Your task to perform on an android device: Do I have any events today? Image 0: 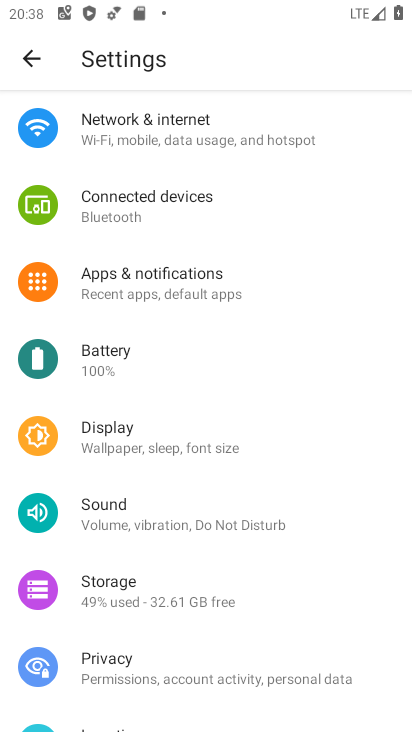
Step 0: press back button
Your task to perform on an android device: Do I have any events today? Image 1: 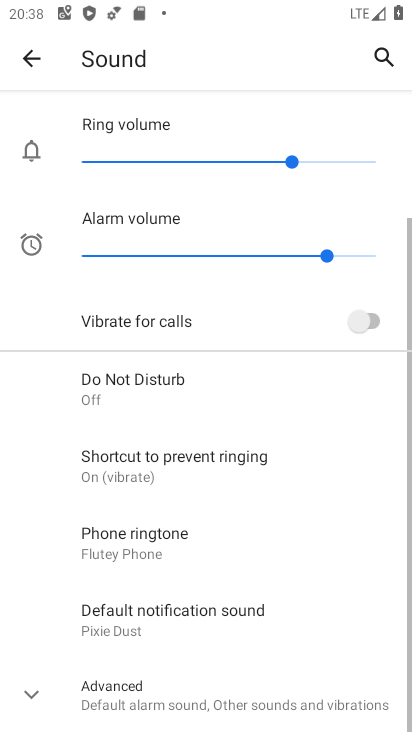
Step 1: press back button
Your task to perform on an android device: Do I have any events today? Image 2: 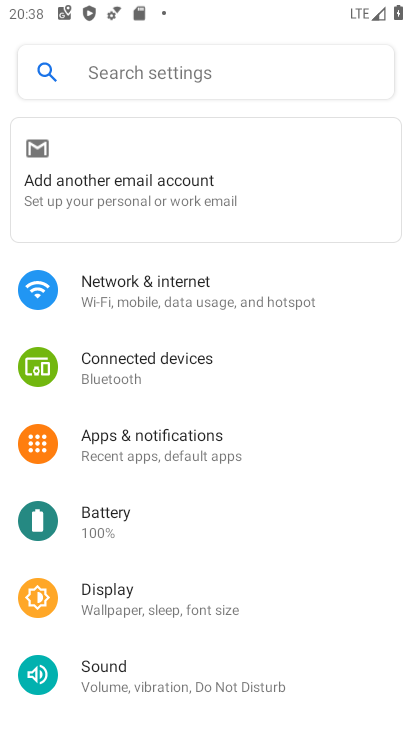
Step 2: press back button
Your task to perform on an android device: Do I have any events today? Image 3: 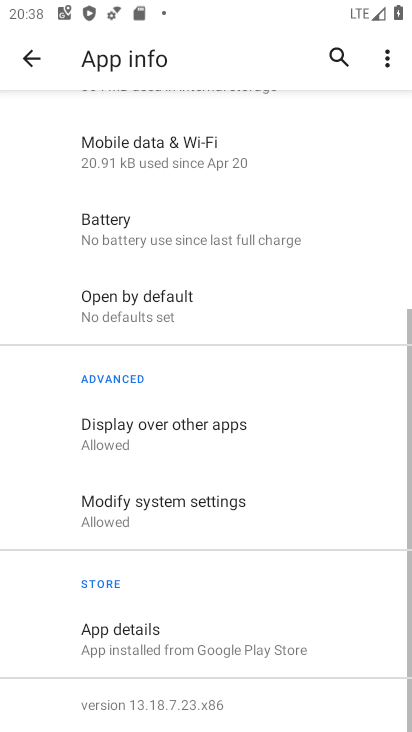
Step 3: press back button
Your task to perform on an android device: Do I have any events today? Image 4: 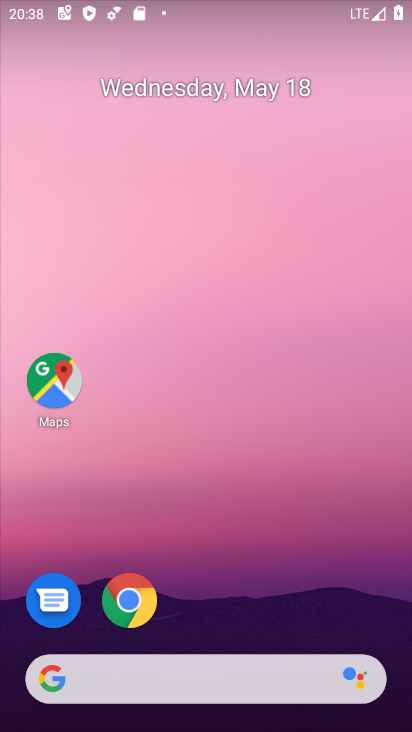
Step 4: drag from (180, 620) to (247, 42)
Your task to perform on an android device: Do I have any events today? Image 5: 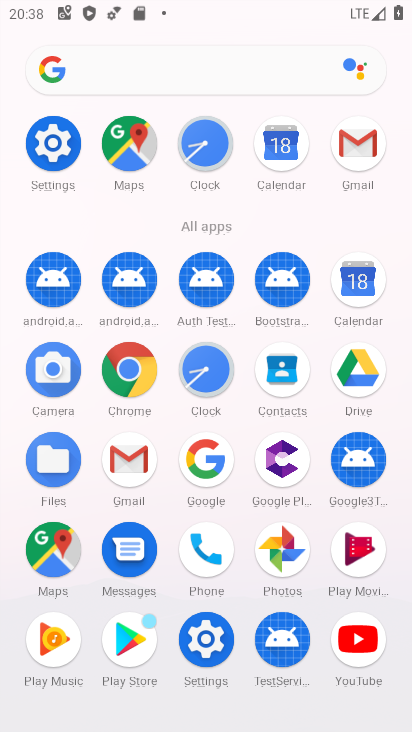
Step 5: click (364, 277)
Your task to perform on an android device: Do I have any events today? Image 6: 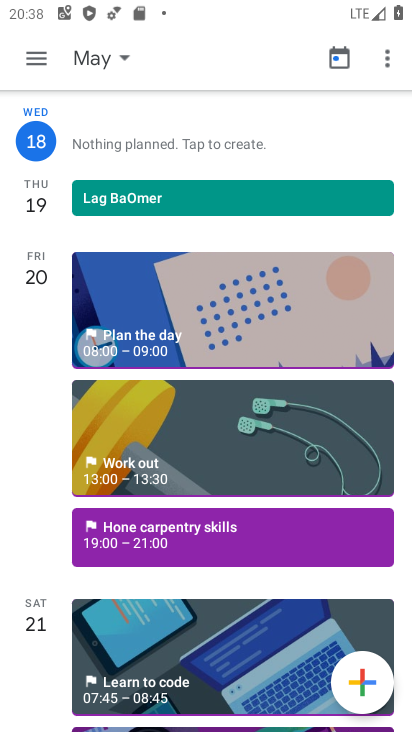
Step 6: click (132, 199)
Your task to perform on an android device: Do I have any events today? Image 7: 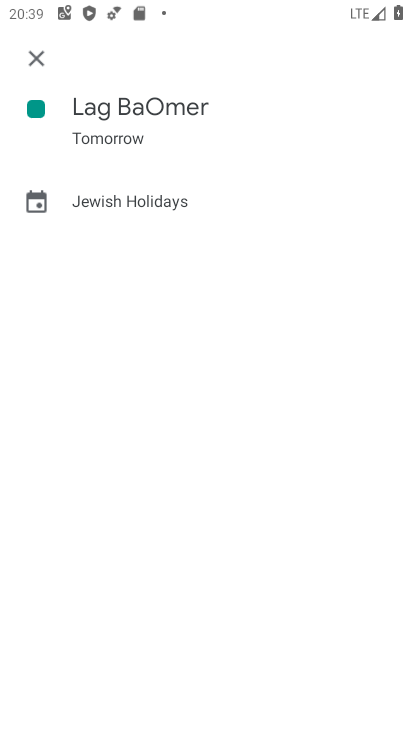
Step 7: task complete